Your task to perform on an android device: Go to accessibility settings Image 0: 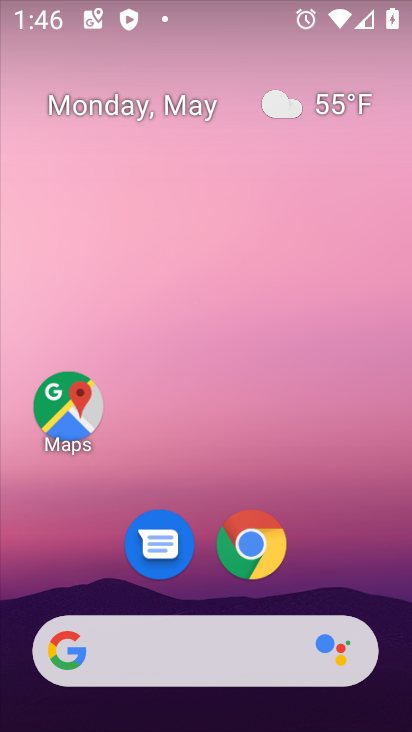
Step 0: drag from (367, 444) to (374, 20)
Your task to perform on an android device: Go to accessibility settings Image 1: 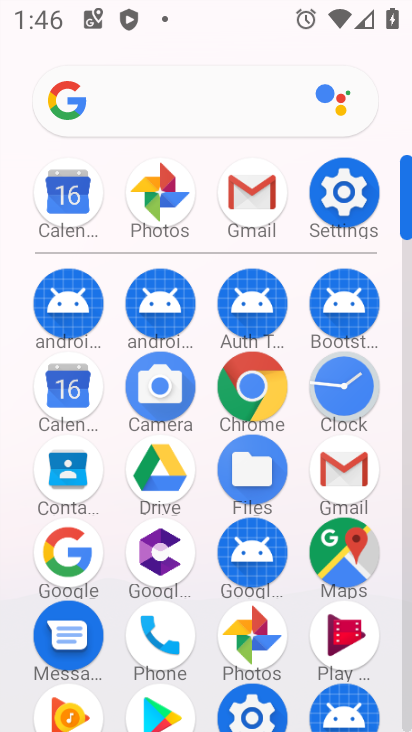
Step 1: click (406, 702)
Your task to perform on an android device: Go to accessibility settings Image 2: 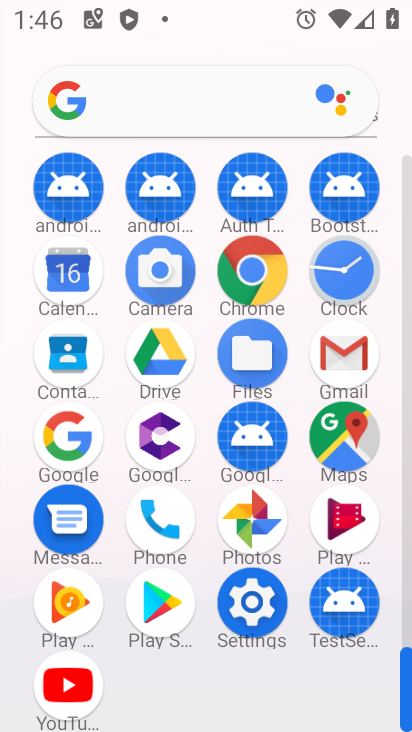
Step 2: click (250, 604)
Your task to perform on an android device: Go to accessibility settings Image 3: 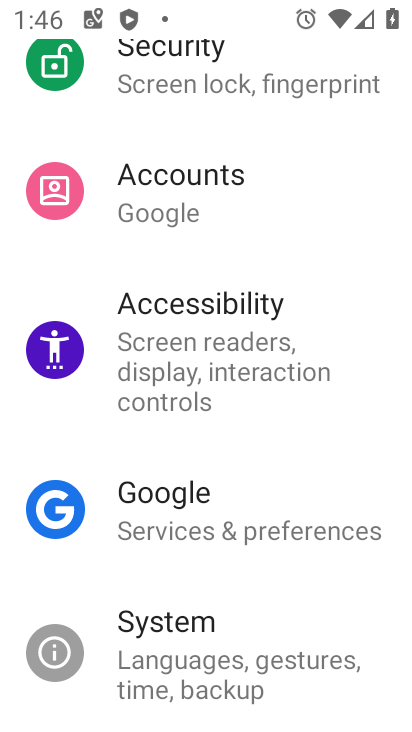
Step 3: click (163, 329)
Your task to perform on an android device: Go to accessibility settings Image 4: 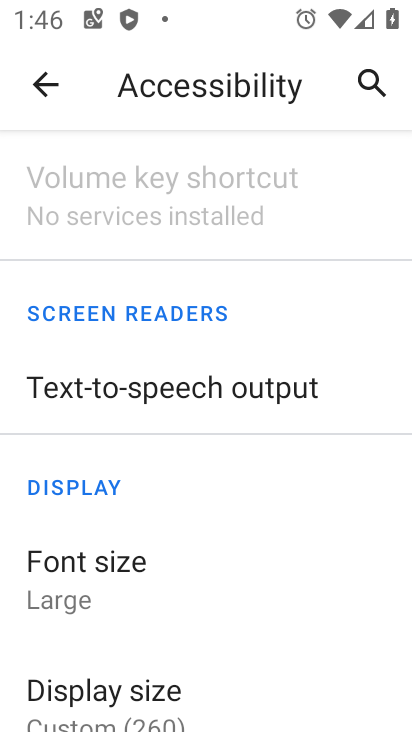
Step 4: task complete